Your task to perform on an android device: Turn off the flashlight Image 0: 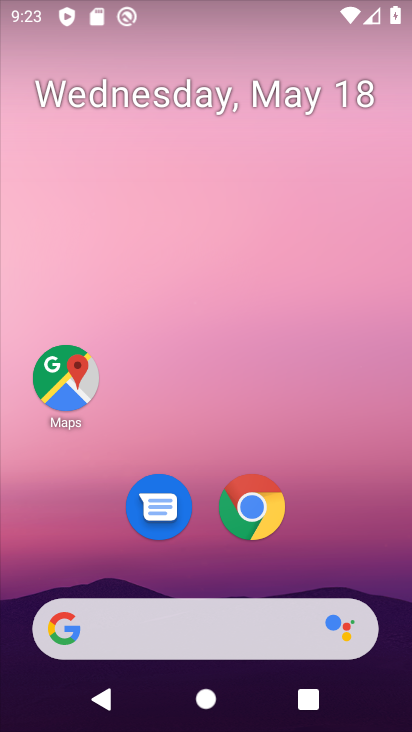
Step 0: drag from (287, 6) to (267, 556)
Your task to perform on an android device: Turn off the flashlight Image 1: 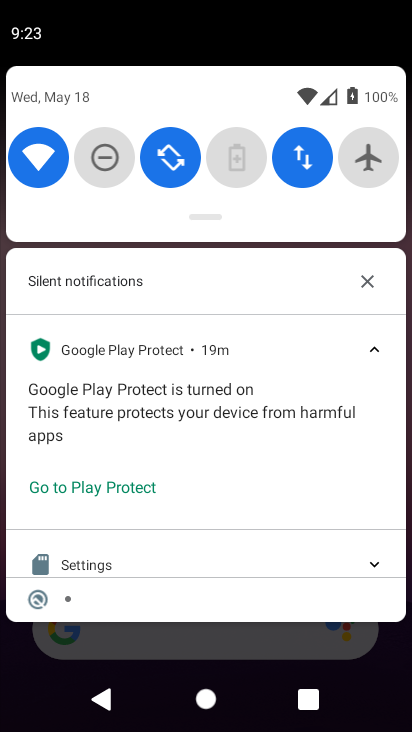
Step 1: task complete